Your task to perform on an android device: change timer sound Image 0: 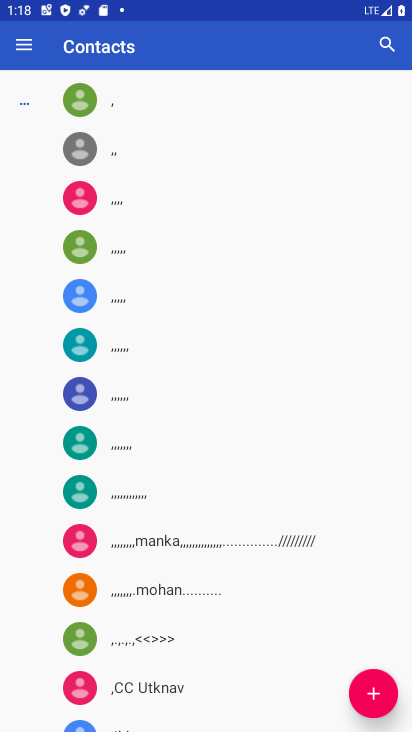
Step 0: press home button
Your task to perform on an android device: change timer sound Image 1: 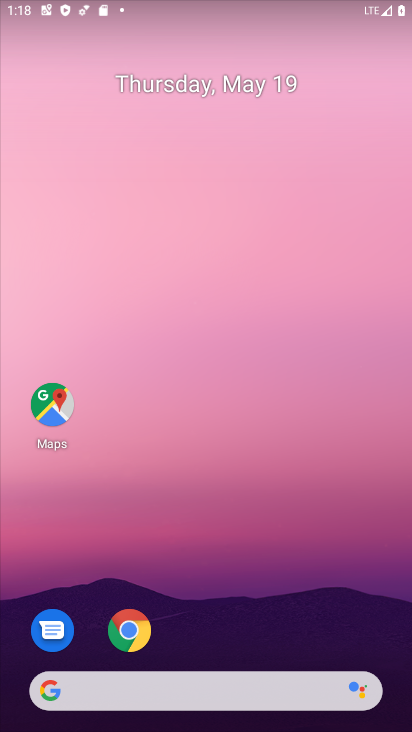
Step 1: drag from (205, 663) to (148, 96)
Your task to perform on an android device: change timer sound Image 2: 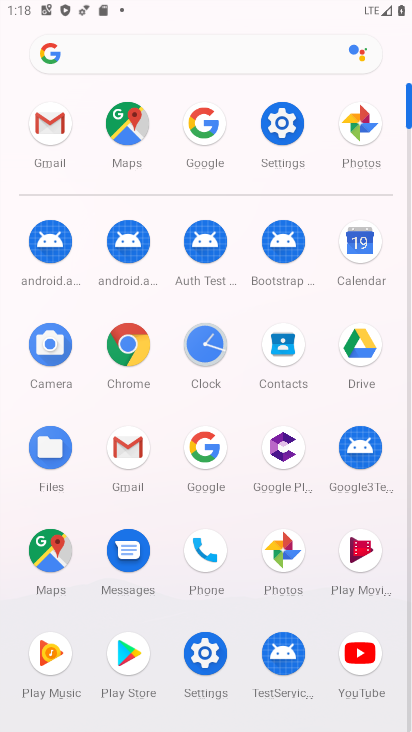
Step 2: click (209, 356)
Your task to perform on an android device: change timer sound Image 3: 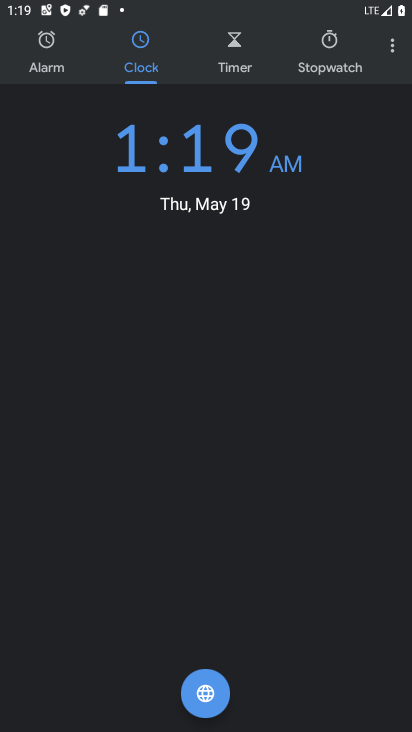
Step 3: click (388, 52)
Your task to perform on an android device: change timer sound Image 4: 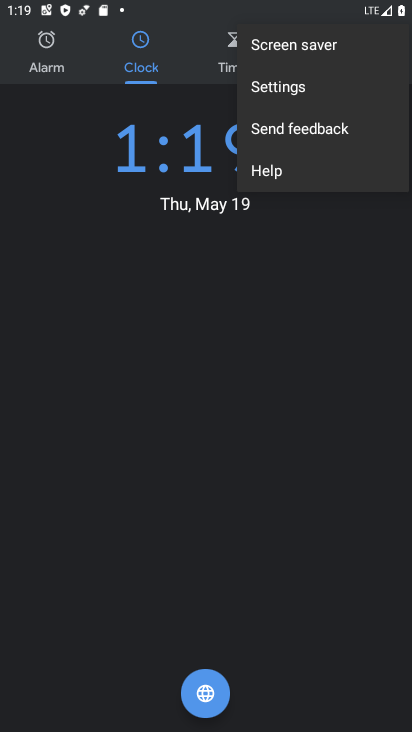
Step 4: click (307, 82)
Your task to perform on an android device: change timer sound Image 5: 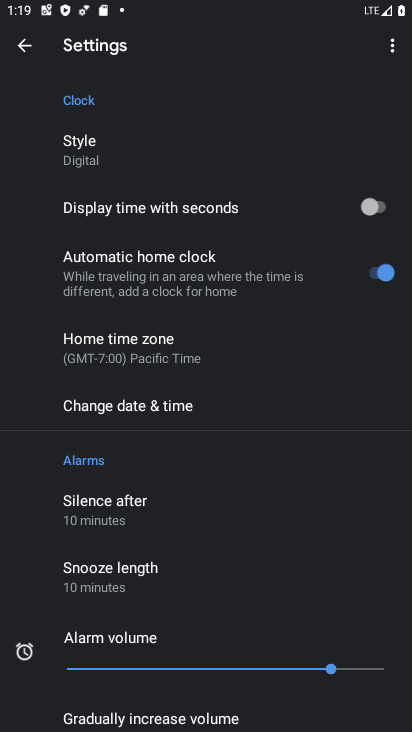
Step 5: drag from (171, 577) to (150, 163)
Your task to perform on an android device: change timer sound Image 6: 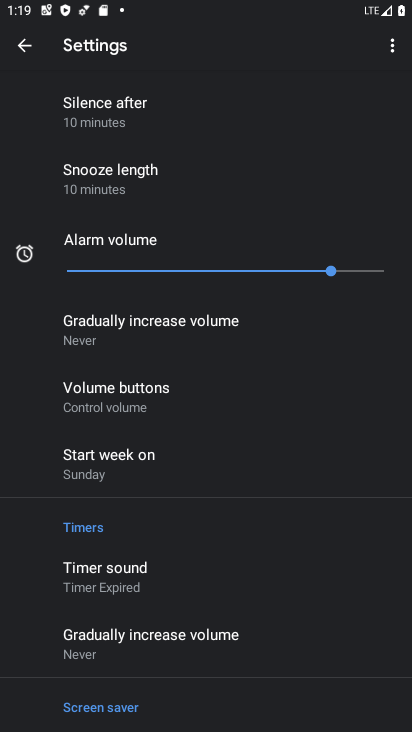
Step 6: click (150, 580)
Your task to perform on an android device: change timer sound Image 7: 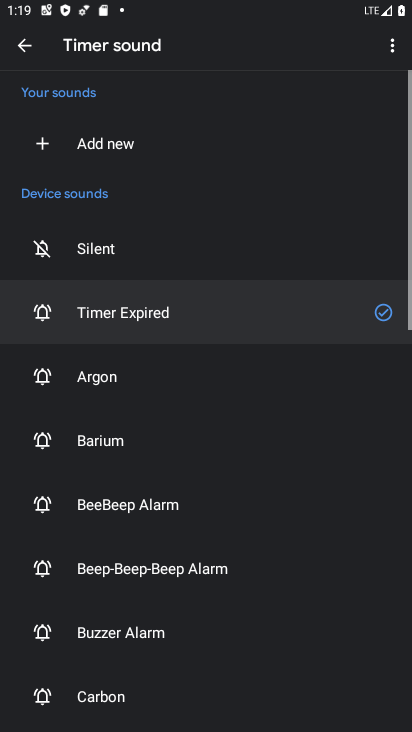
Step 7: click (121, 359)
Your task to perform on an android device: change timer sound Image 8: 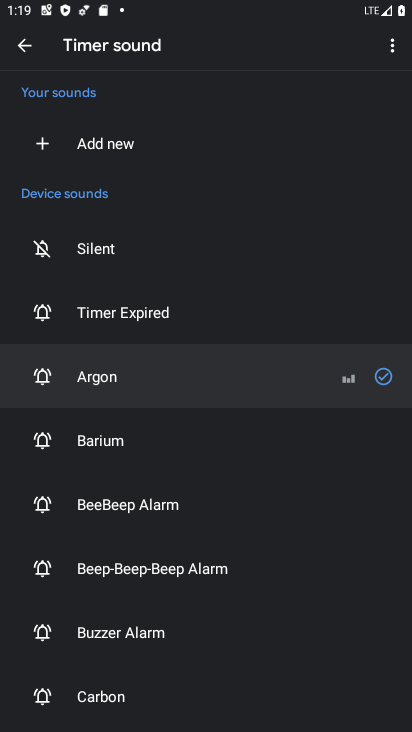
Step 8: task complete